Your task to perform on an android device: Open ESPN.com Image 0: 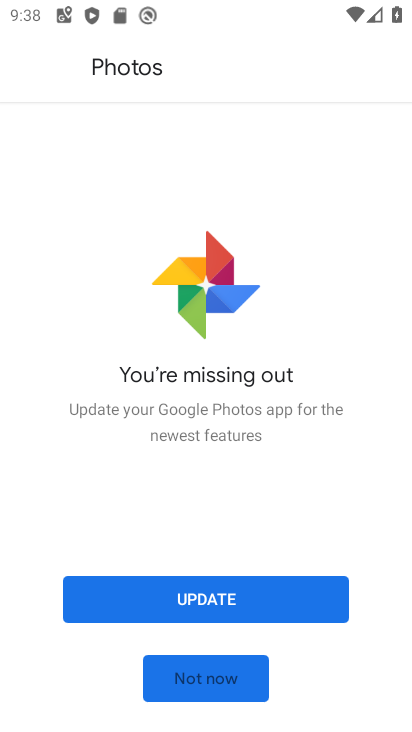
Step 0: press home button
Your task to perform on an android device: Open ESPN.com Image 1: 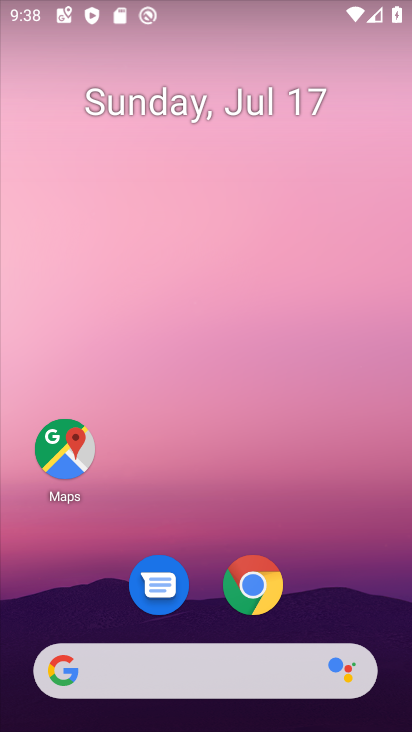
Step 1: click (139, 675)
Your task to perform on an android device: Open ESPN.com Image 2: 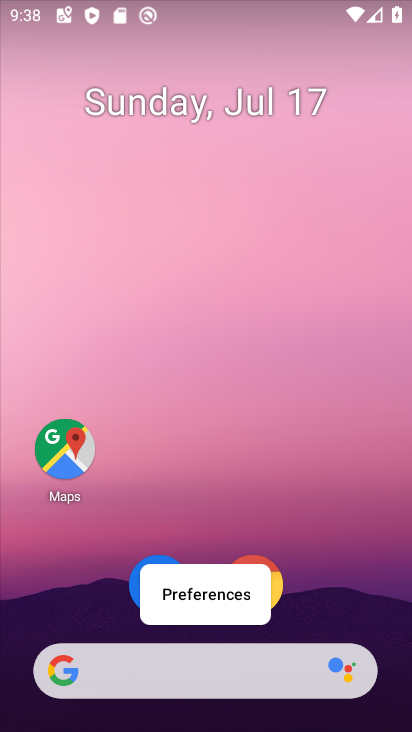
Step 2: click (161, 672)
Your task to perform on an android device: Open ESPN.com Image 3: 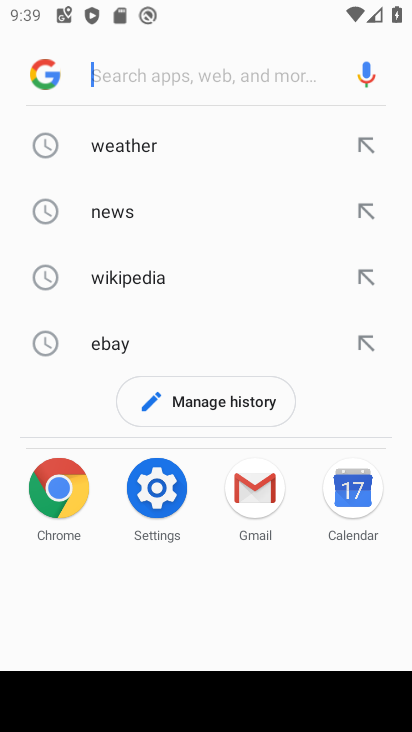
Step 3: type "espn.com"
Your task to perform on an android device: Open ESPN.com Image 4: 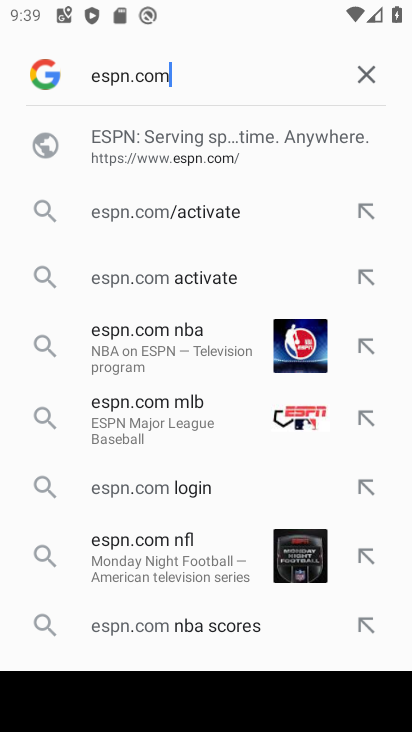
Step 4: click (169, 144)
Your task to perform on an android device: Open ESPN.com Image 5: 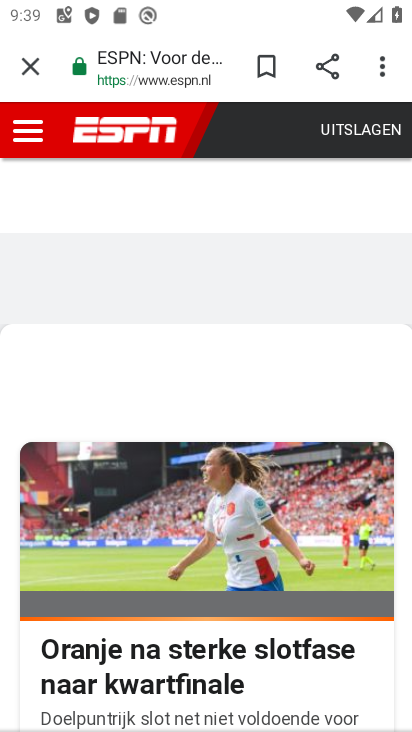
Step 5: task complete